Your task to perform on an android device: Open Google Chrome and click the shortcut for Amazon.com Image 0: 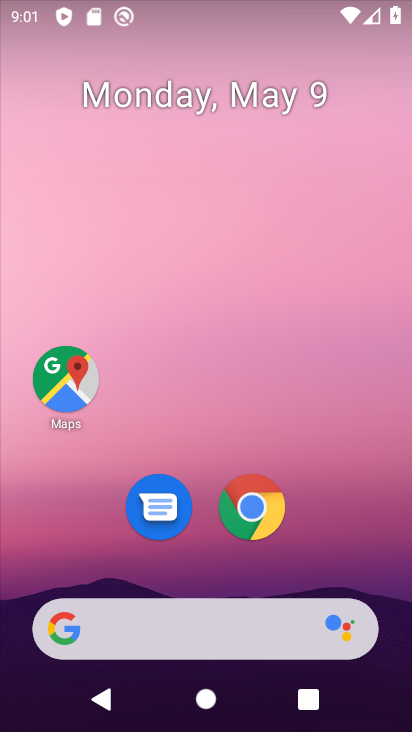
Step 0: click (252, 502)
Your task to perform on an android device: Open Google Chrome and click the shortcut for Amazon.com Image 1: 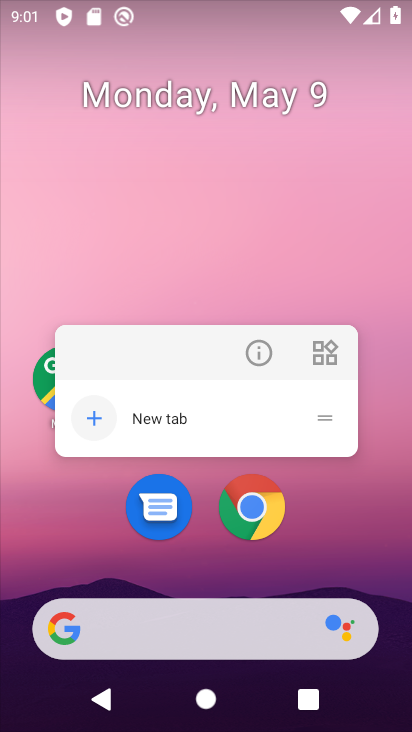
Step 1: click (250, 510)
Your task to perform on an android device: Open Google Chrome and click the shortcut for Amazon.com Image 2: 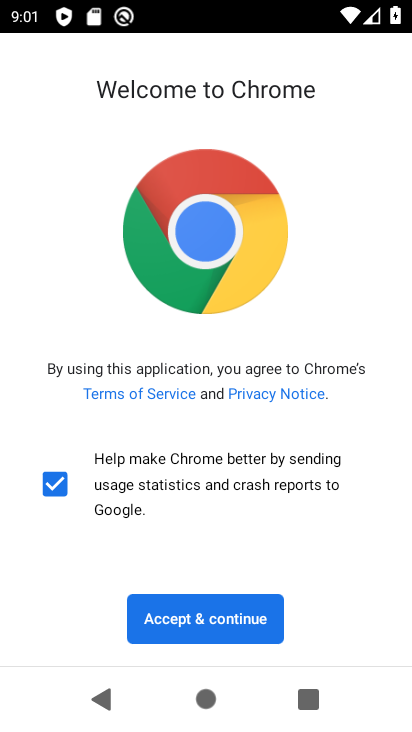
Step 2: click (222, 622)
Your task to perform on an android device: Open Google Chrome and click the shortcut for Amazon.com Image 3: 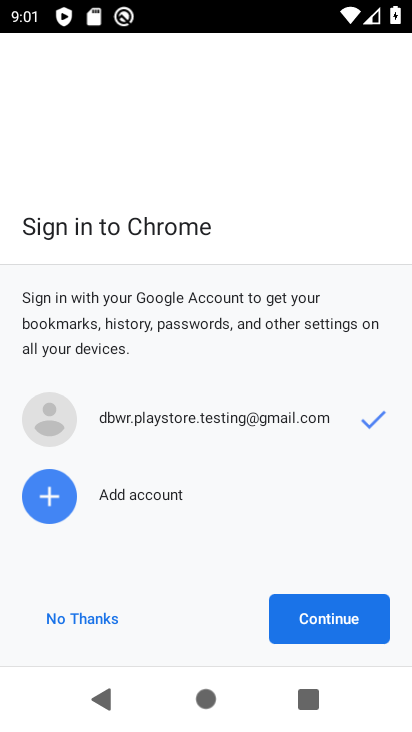
Step 3: click (313, 616)
Your task to perform on an android device: Open Google Chrome and click the shortcut for Amazon.com Image 4: 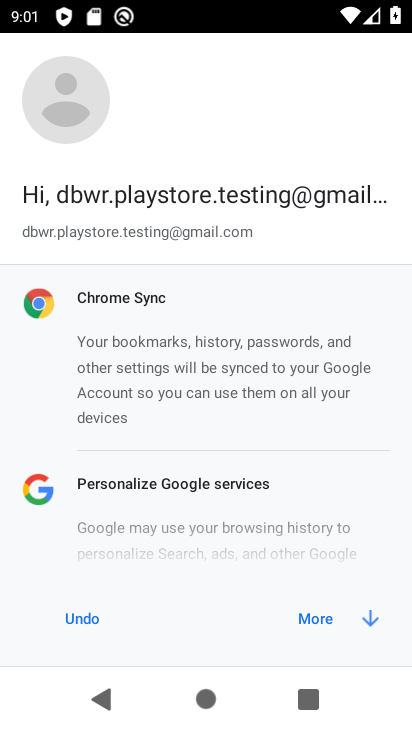
Step 4: click (336, 616)
Your task to perform on an android device: Open Google Chrome and click the shortcut for Amazon.com Image 5: 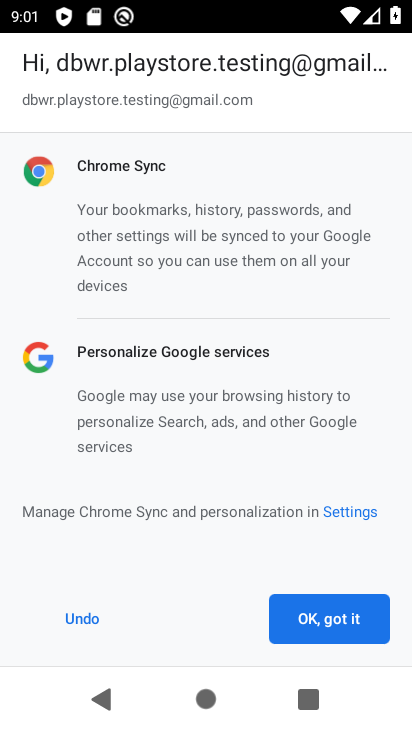
Step 5: click (336, 616)
Your task to perform on an android device: Open Google Chrome and click the shortcut for Amazon.com Image 6: 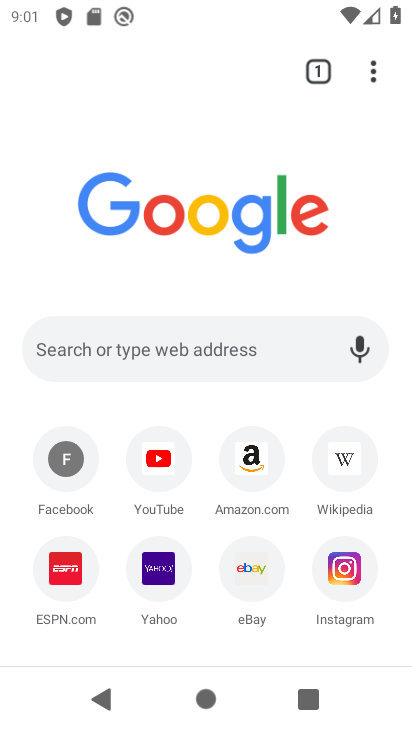
Step 6: click (265, 456)
Your task to perform on an android device: Open Google Chrome and click the shortcut for Amazon.com Image 7: 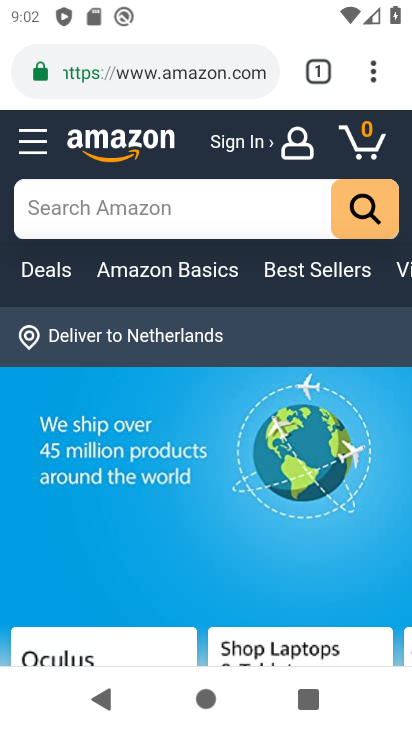
Step 7: task complete